Your task to perform on an android device: open chrome privacy settings Image 0: 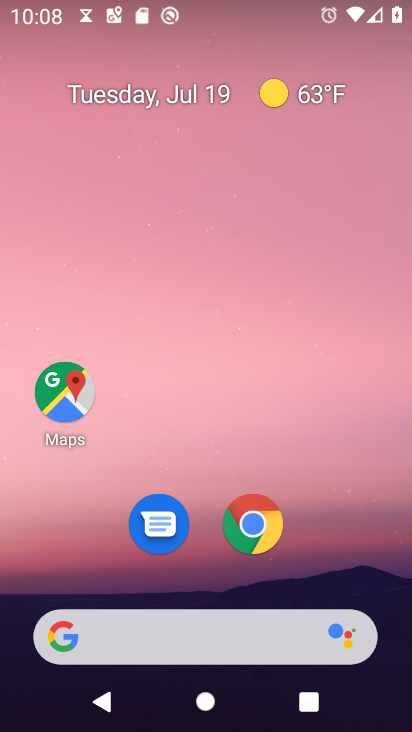
Step 0: press home button
Your task to perform on an android device: open chrome privacy settings Image 1: 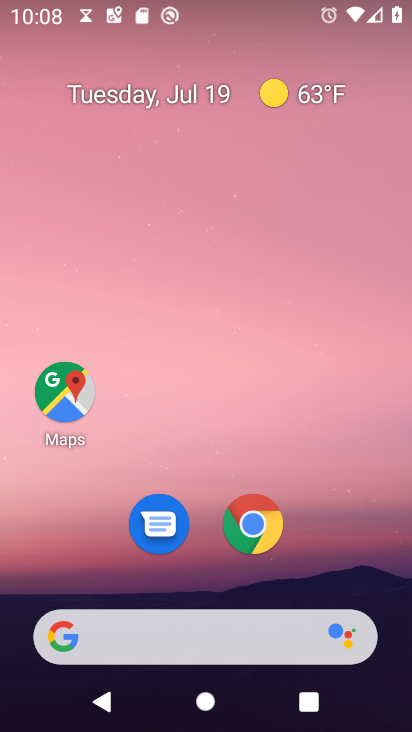
Step 1: click (256, 522)
Your task to perform on an android device: open chrome privacy settings Image 2: 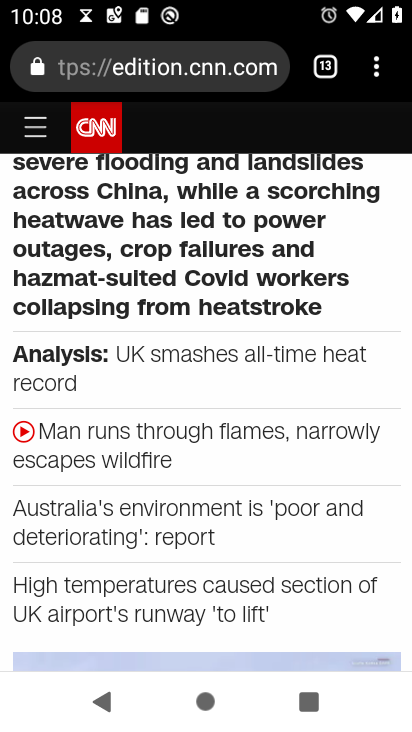
Step 2: drag from (380, 67) to (273, 530)
Your task to perform on an android device: open chrome privacy settings Image 3: 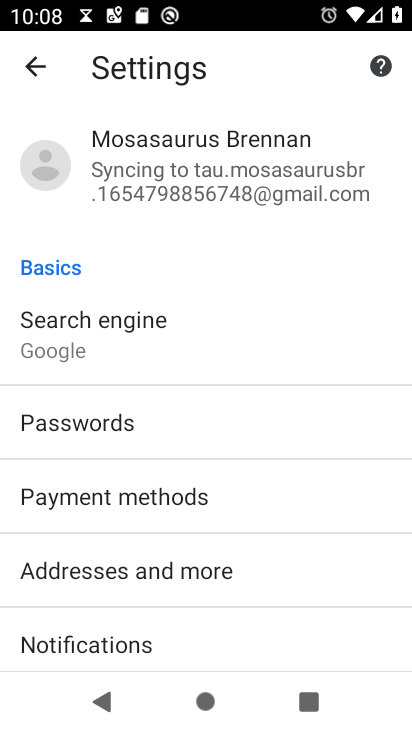
Step 3: drag from (188, 613) to (259, 152)
Your task to perform on an android device: open chrome privacy settings Image 4: 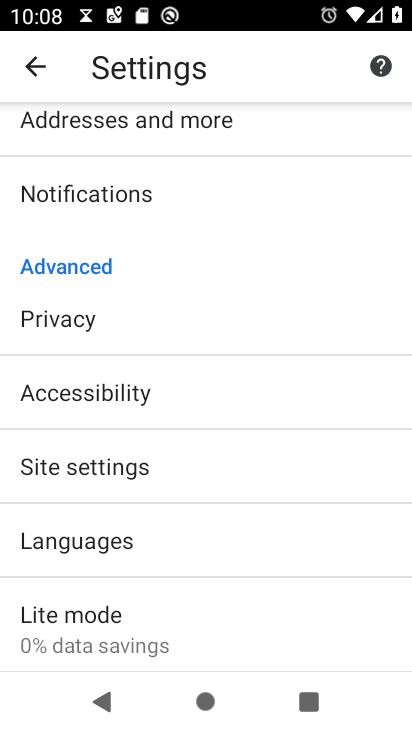
Step 4: click (77, 328)
Your task to perform on an android device: open chrome privacy settings Image 5: 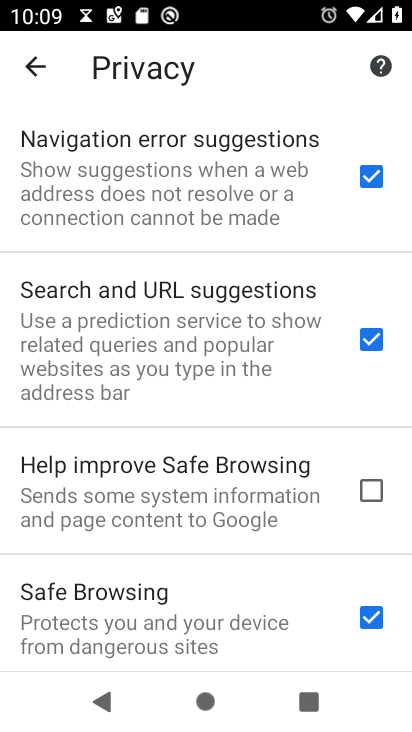
Step 5: task complete